Your task to perform on an android device: Open display settings Image 0: 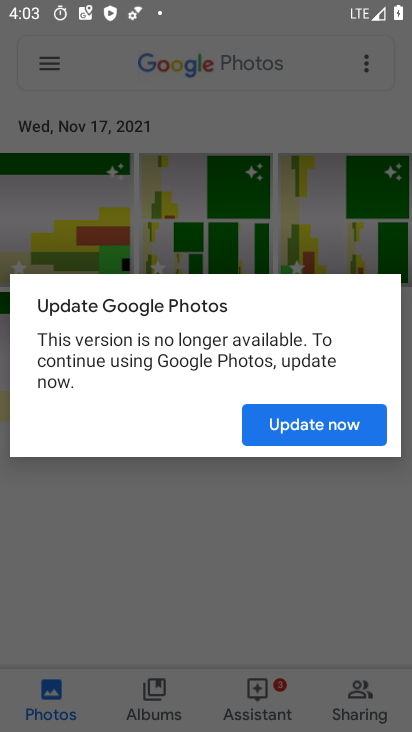
Step 0: press home button
Your task to perform on an android device: Open display settings Image 1: 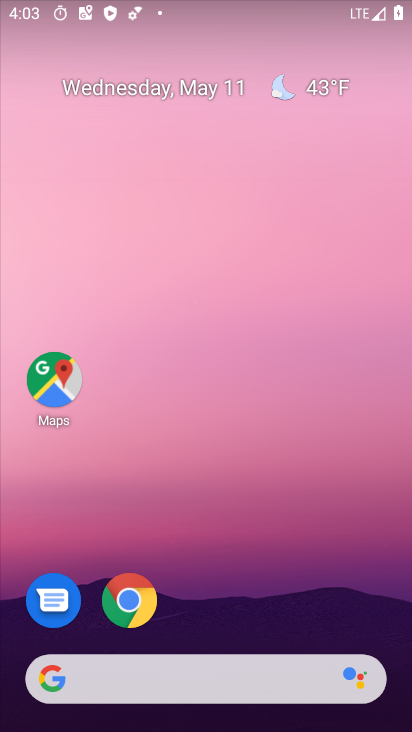
Step 1: drag from (324, 593) to (314, 27)
Your task to perform on an android device: Open display settings Image 2: 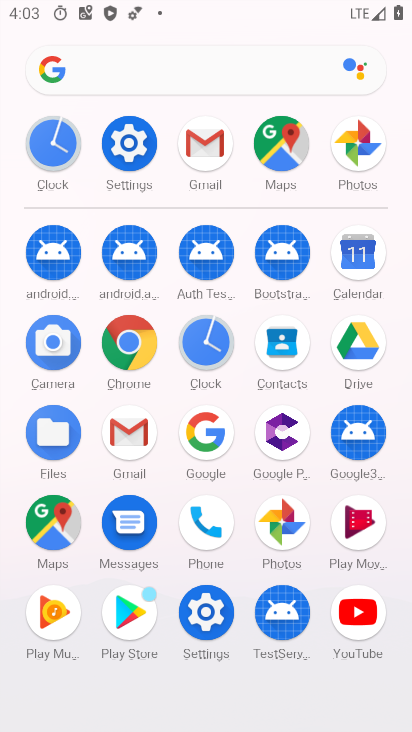
Step 2: click (123, 147)
Your task to perform on an android device: Open display settings Image 3: 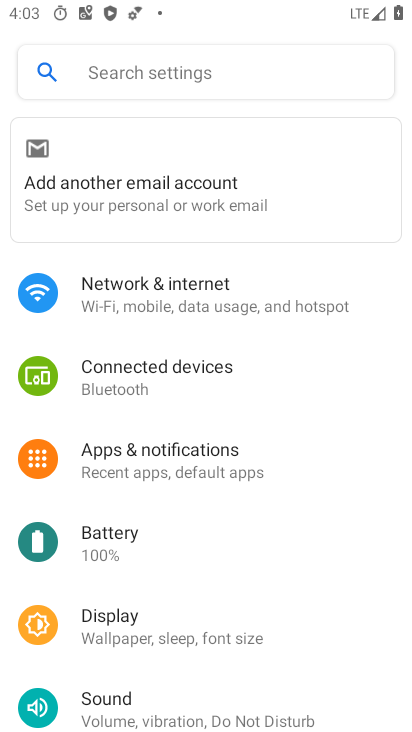
Step 3: click (96, 623)
Your task to perform on an android device: Open display settings Image 4: 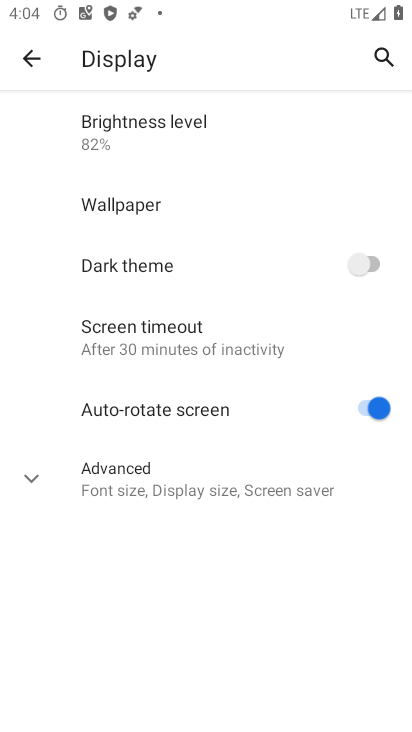
Step 4: task complete